Your task to perform on an android device: Go to settings Image 0: 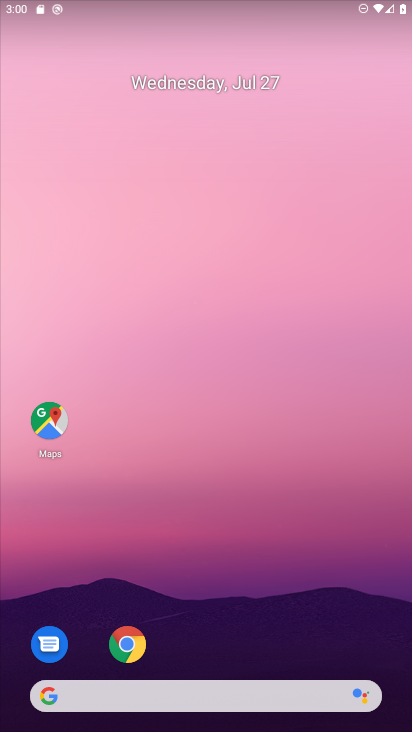
Step 0: drag from (223, 646) to (235, 12)
Your task to perform on an android device: Go to settings Image 1: 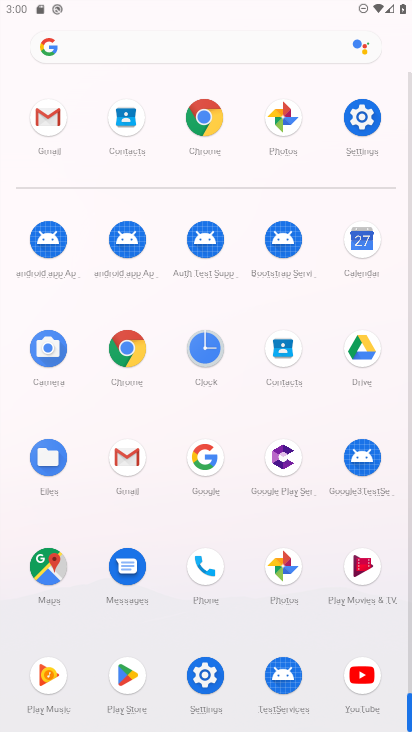
Step 1: click (200, 671)
Your task to perform on an android device: Go to settings Image 2: 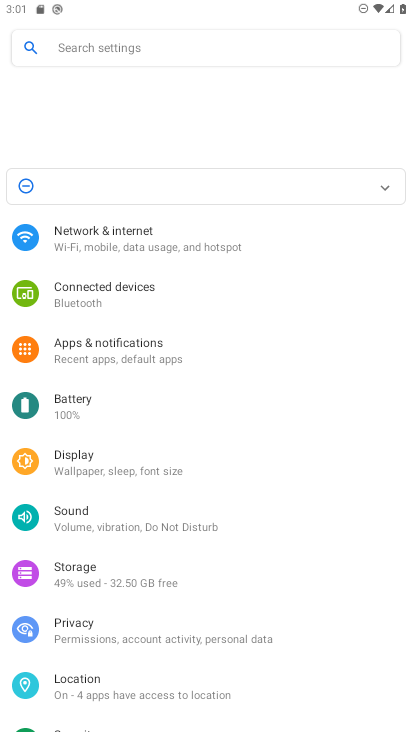
Step 2: task complete